Your task to perform on an android device: Go to Maps Image 0: 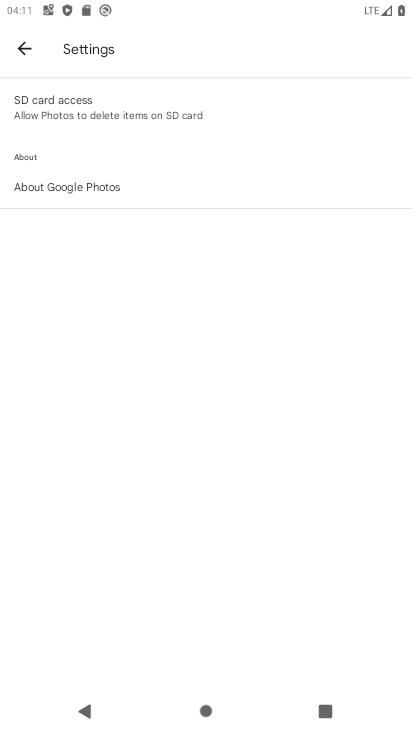
Step 0: press home button
Your task to perform on an android device: Go to Maps Image 1: 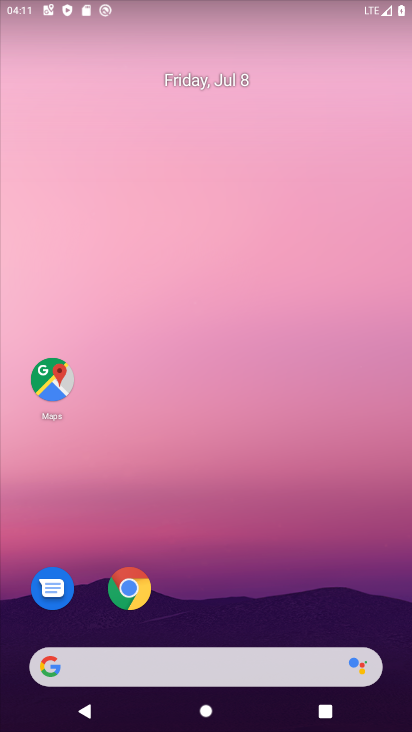
Step 1: click (61, 381)
Your task to perform on an android device: Go to Maps Image 2: 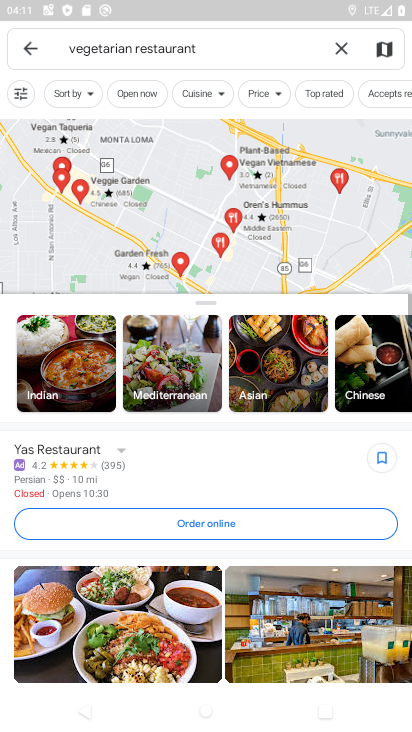
Step 2: task complete